Your task to perform on an android device: Open Google Image 0: 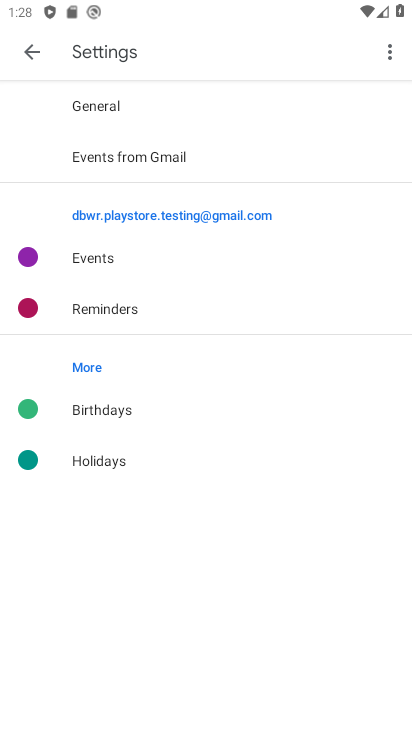
Step 0: press back button
Your task to perform on an android device: Open Google Image 1: 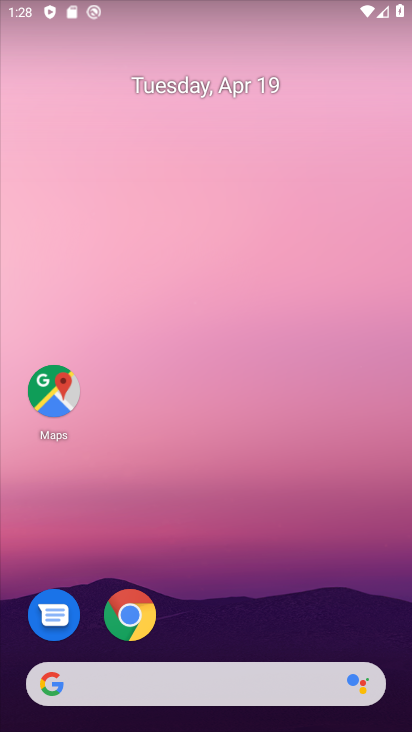
Step 1: drag from (188, 660) to (319, 30)
Your task to perform on an android device: Open Google Image 2: 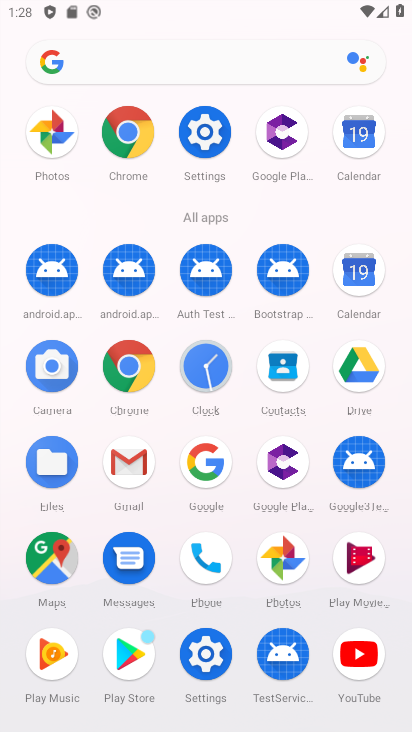
Step 2: click (202, 464)
Your task to perform on an android device: Open Google Image 3: 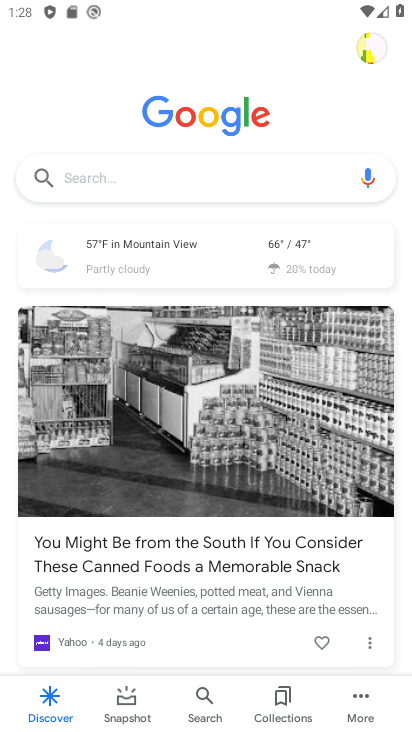
Step 3: task complete